Your task to perform on an android device: turn off improve location accuracy Image 0: 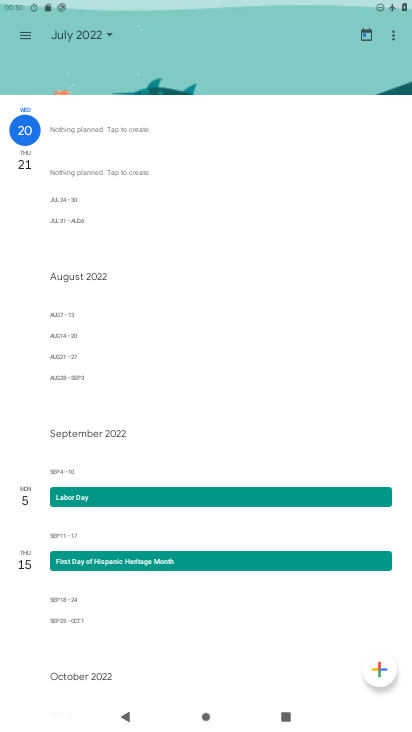
Step 0: press home button
Your task to perform on an android device: turn off improve location accuracy Image 1: 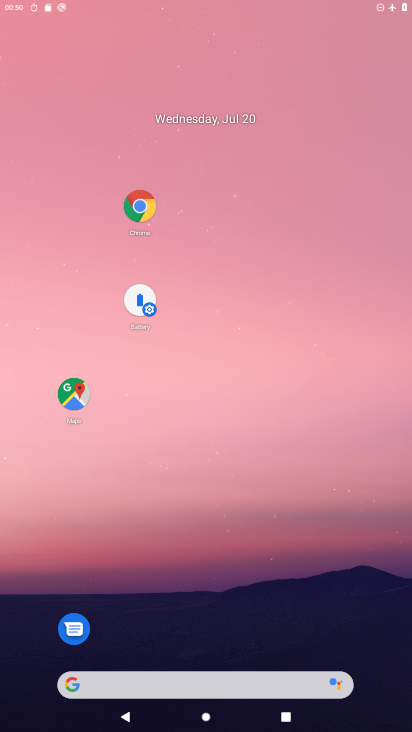
Step 1: drag from (188, 585) to (282, 0)
Your task to perform on an android device: turn off improve location accuracy Image 2: 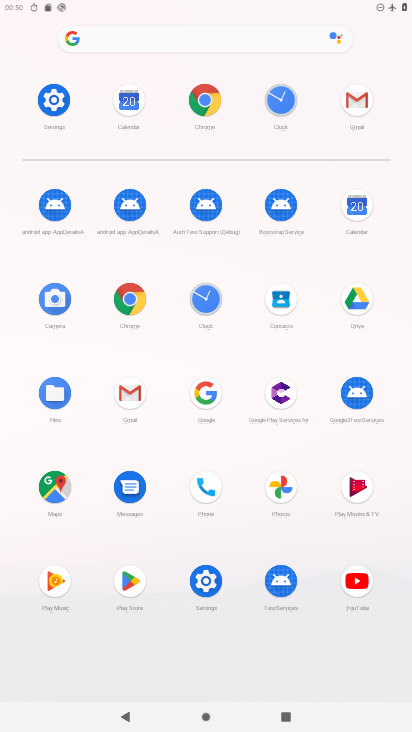
Step 2: click (211, 568)
Your task to perform on an android device: turn off improve location accuracy Image 3: 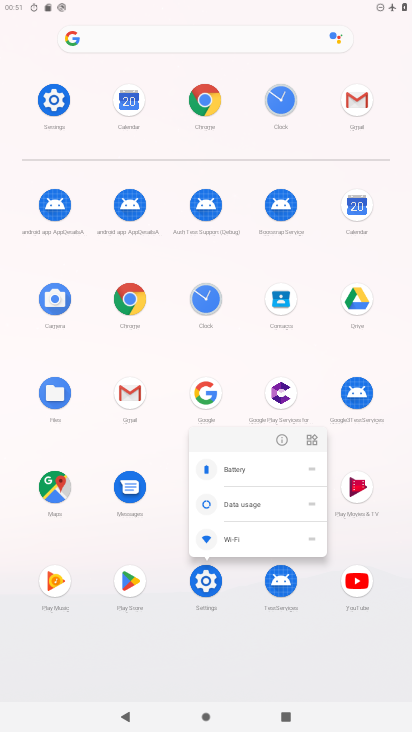
Step 3: click (280, 440)
Your task to perform on an android device: turn off improve location accuracy Image 4: 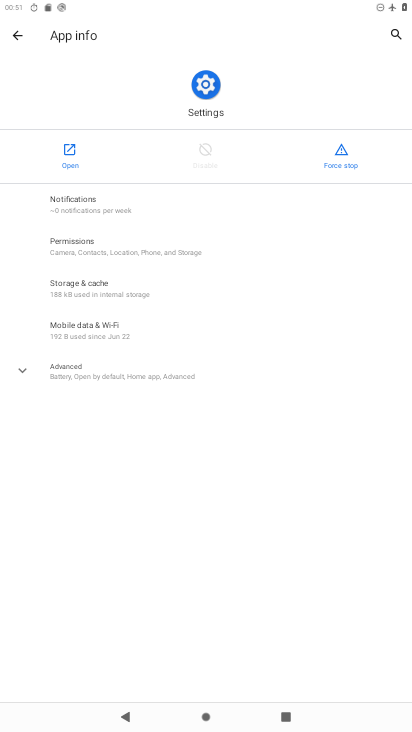
Step 4: click (98, 372)
Your task to perform on an android device: turn off improve location accuracy Image 5: 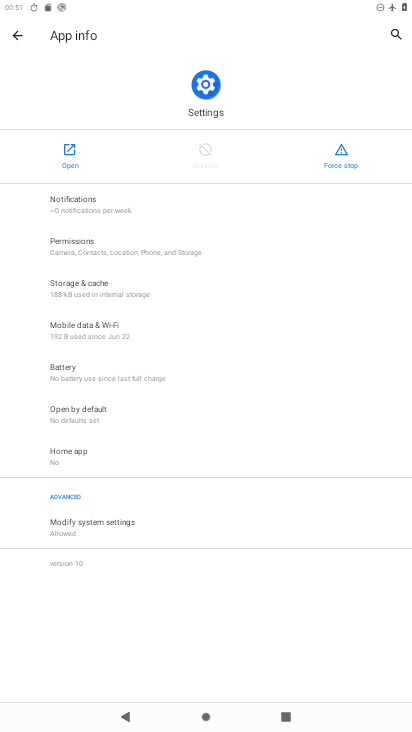
Step 5: click (77, 148)
Your task to perform on an android device: turn off improve location accuracy Image 6: 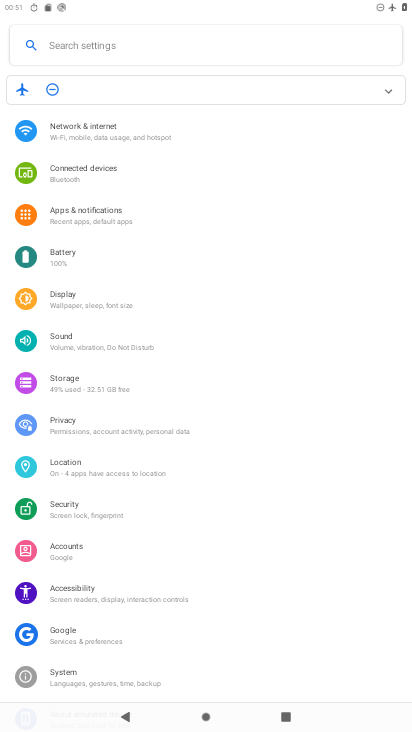
Step 6: click (98, 469)
Your task to perform on an android device: turn off improve location accuracy Image 7: 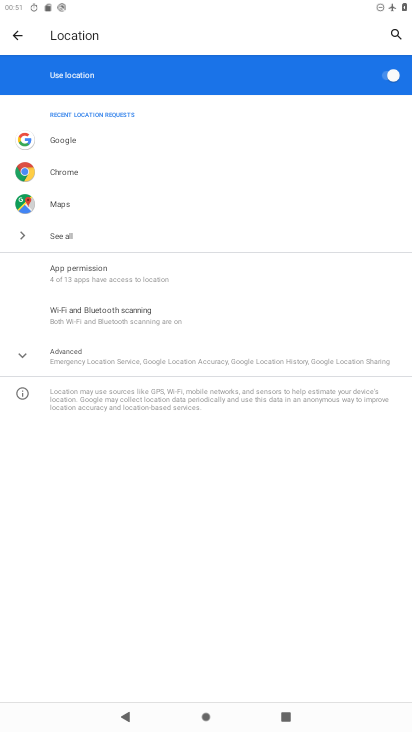
Step 7: click (69, 344)
Your task to perform on an android device: turn off improve location accuracy Image 8: 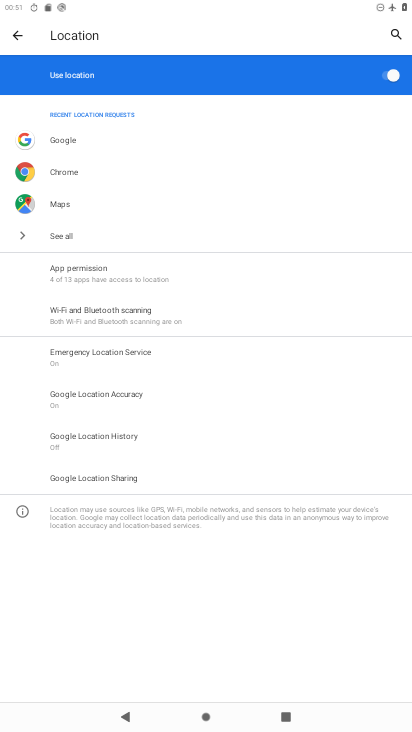
Step 8: click (117, 389)
Your task to perform on an android device: turn off improve location accuracy Image 9: 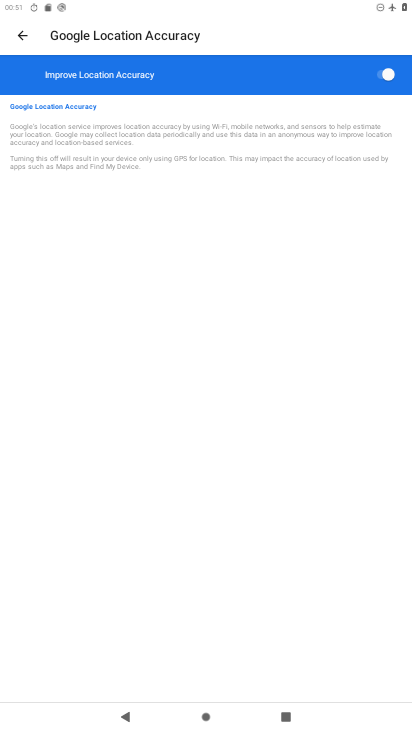
Step 9: drag from (286, 536) to (327, 386)
Your task to perform on an android device: turn off improve location accuracy Image 10: 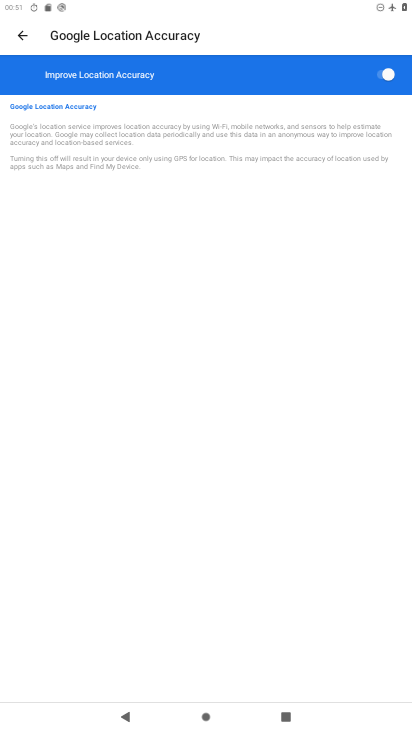
Step 10: click (387, 68)
Your task to perform on an android device: turn off improve location accuracy Image 11: 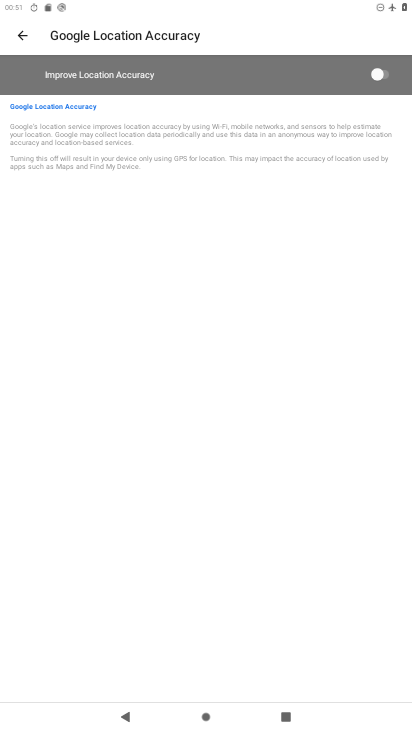
Step 11: task complete